Your task to perform on an android device: Add "dell xps" to the cart on ebay Image 0: 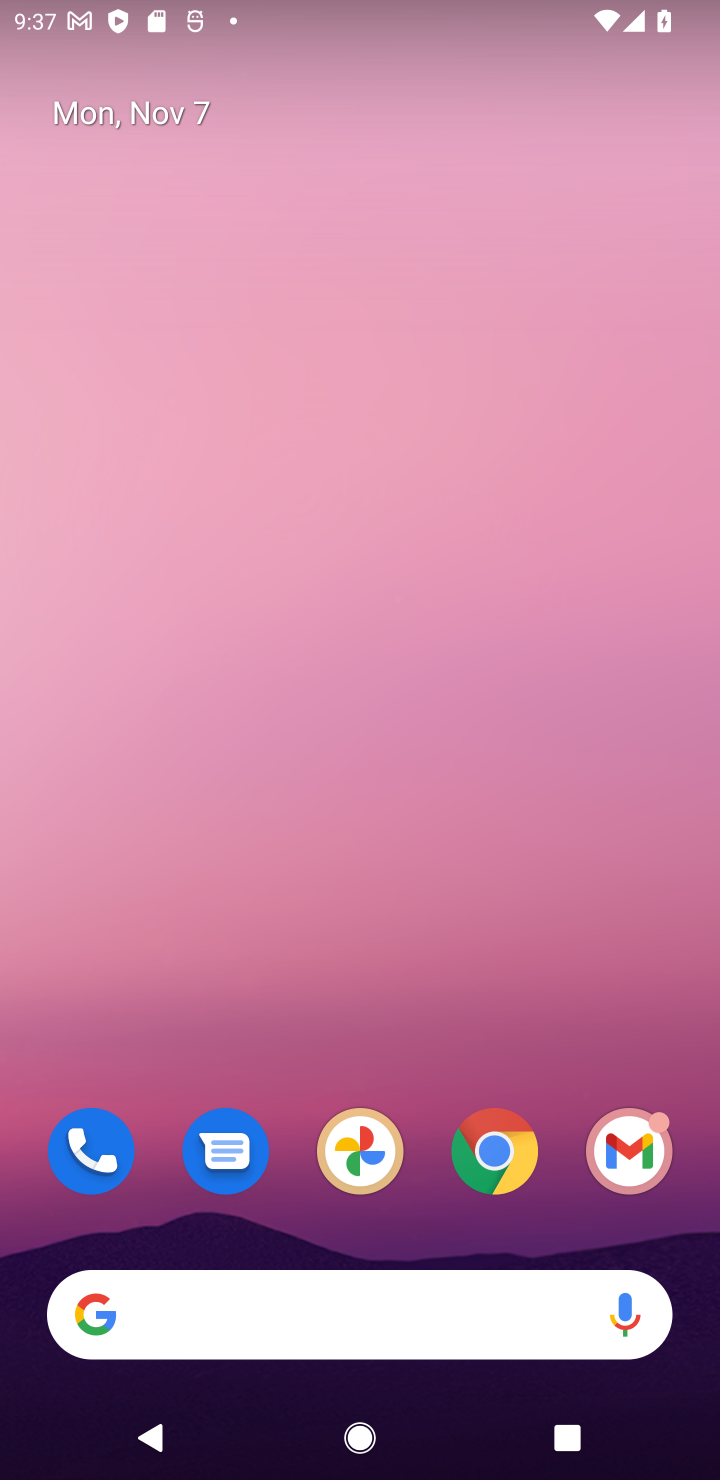
Step 0: press home button
Your task to perform on an android device: Add "dell xps" to the cart on ebay Image 1: 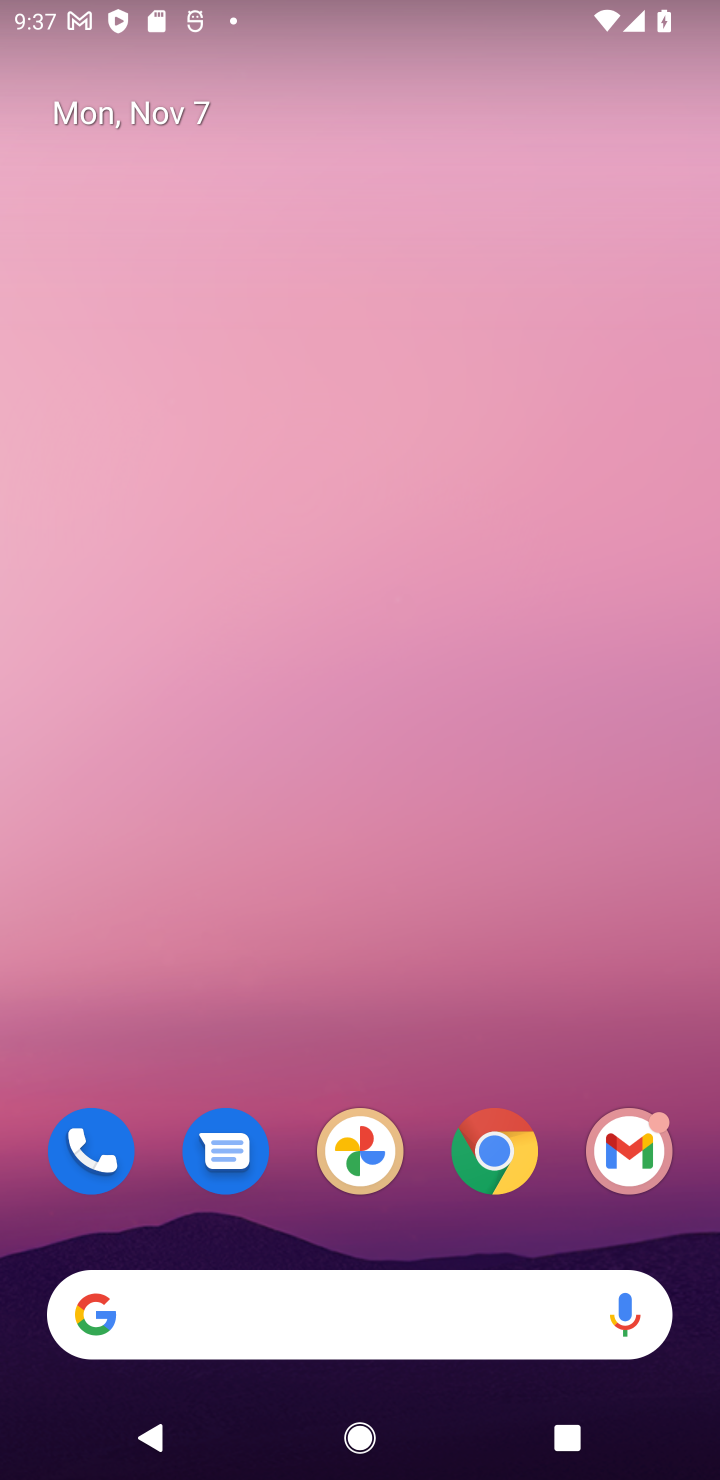
Step 1: click (513, 1134)
Your task to perform on an android device: Add "dell xps" to the cart on ebay Image 2: 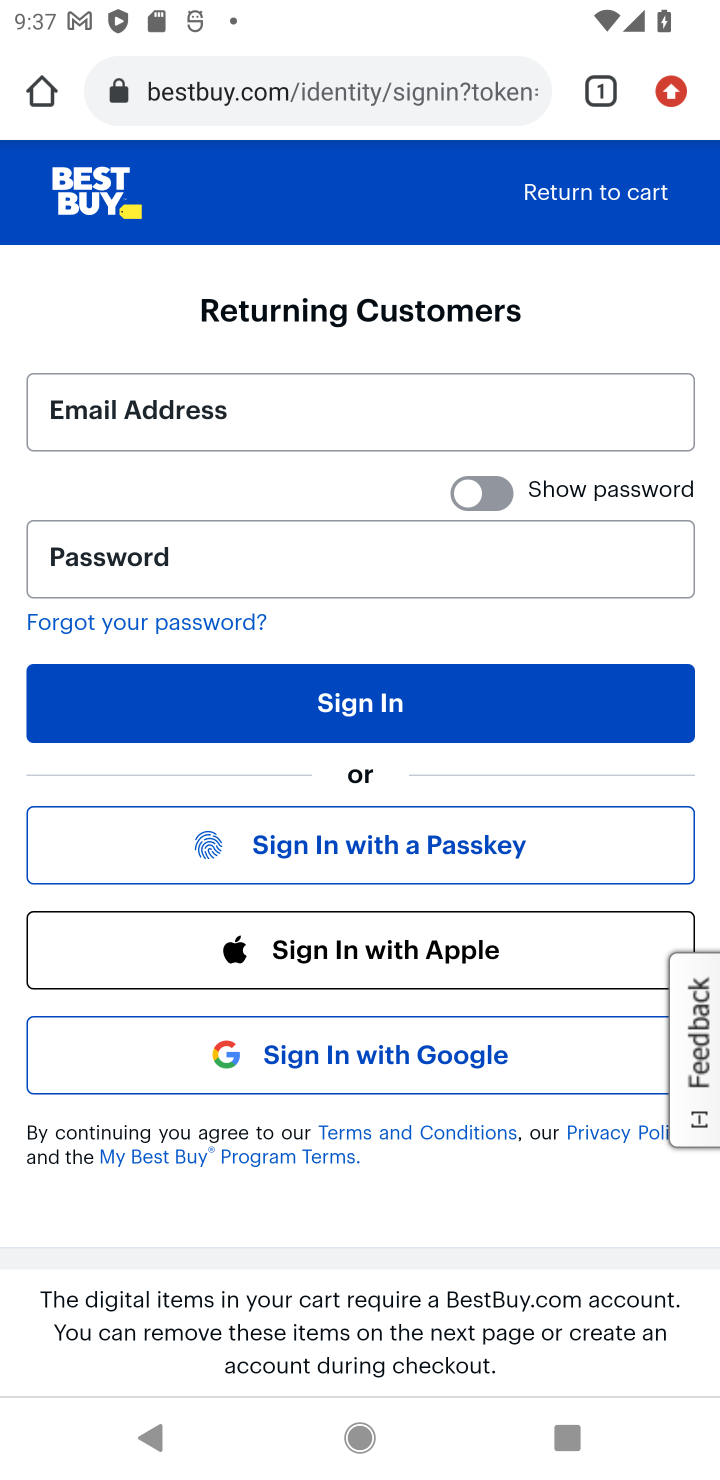
Step 2: click (270, 80)
Your task to perform on an android device: Add "dell xps" to the cart on ebay Image 3: 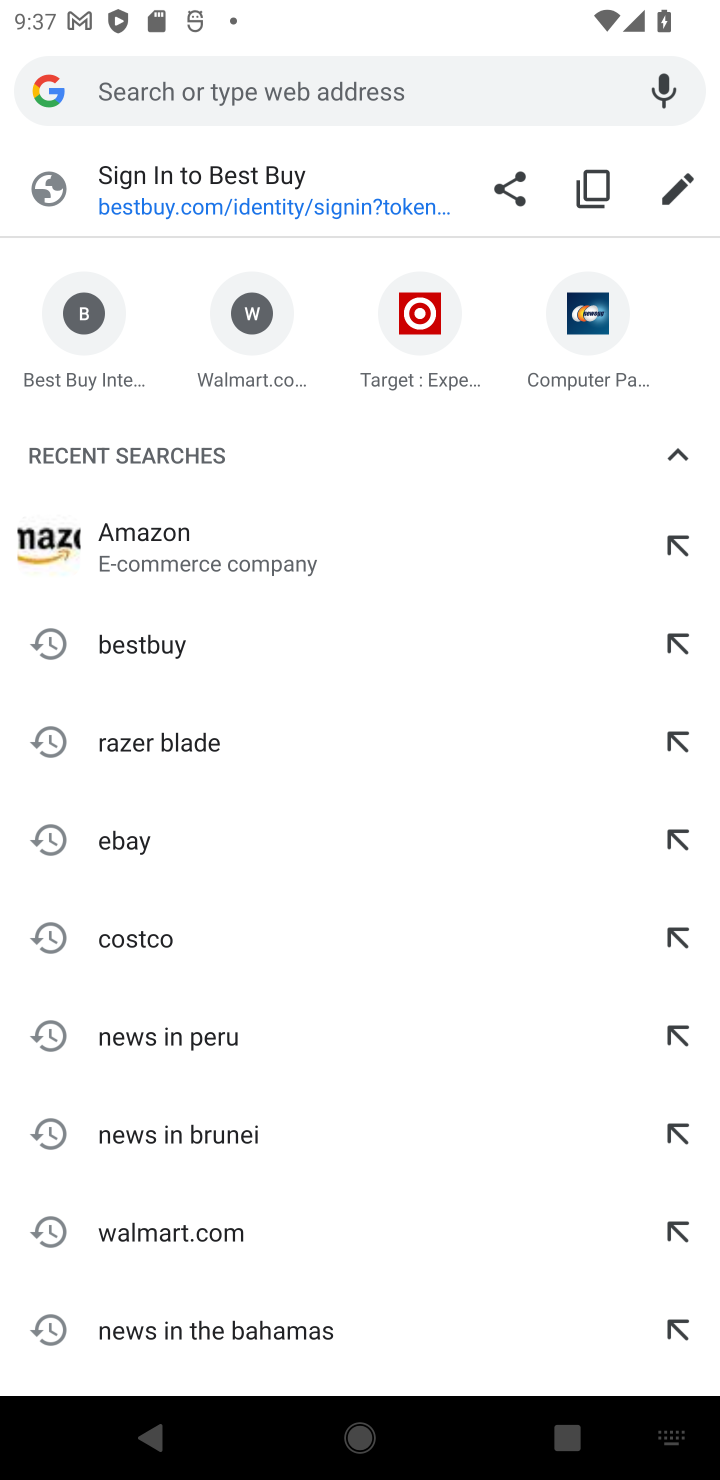
Step 3: click (123, 834)
Your task to perform on an android device: Add "dell xps" to the cart on ebay Image 4: 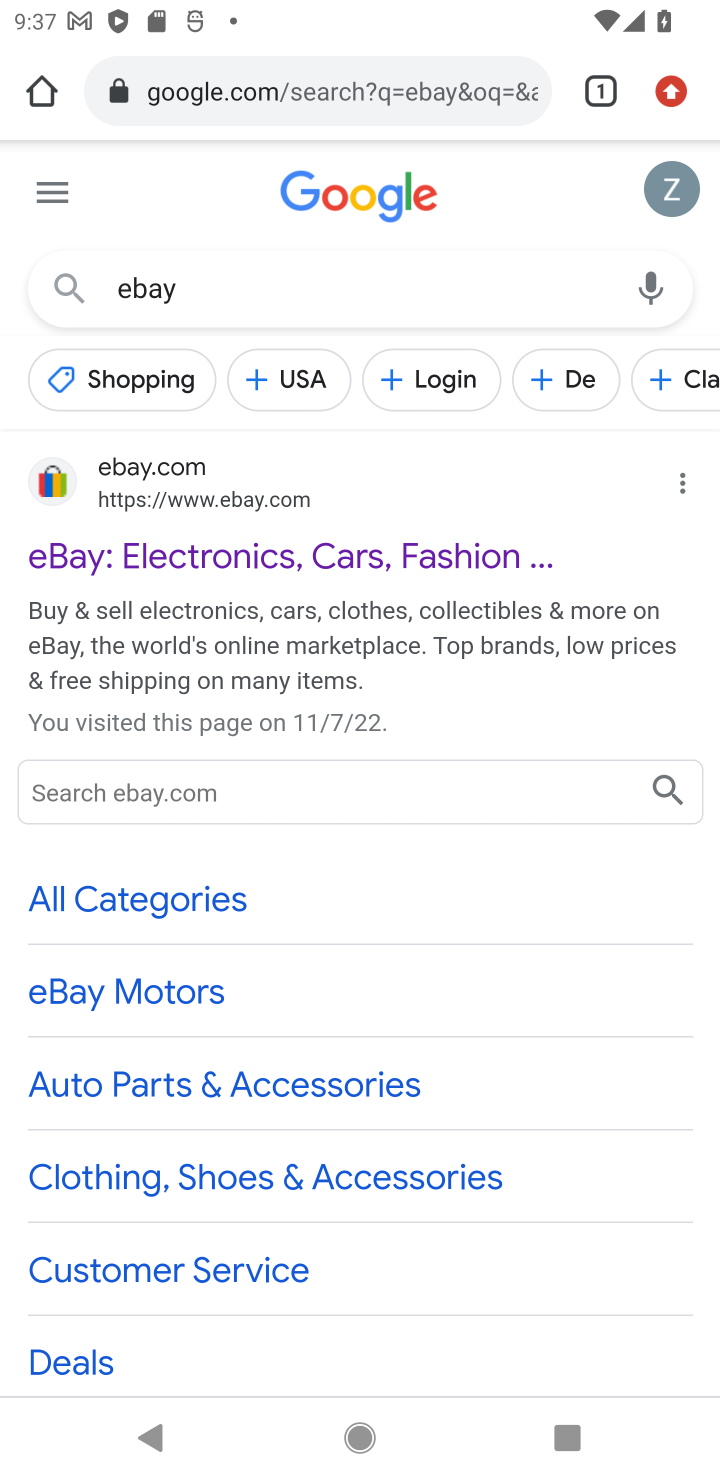
Step 4: click (273, 541)
Your task to perform on an android device: Add "dell xps" to the cart on ebay Image 5: 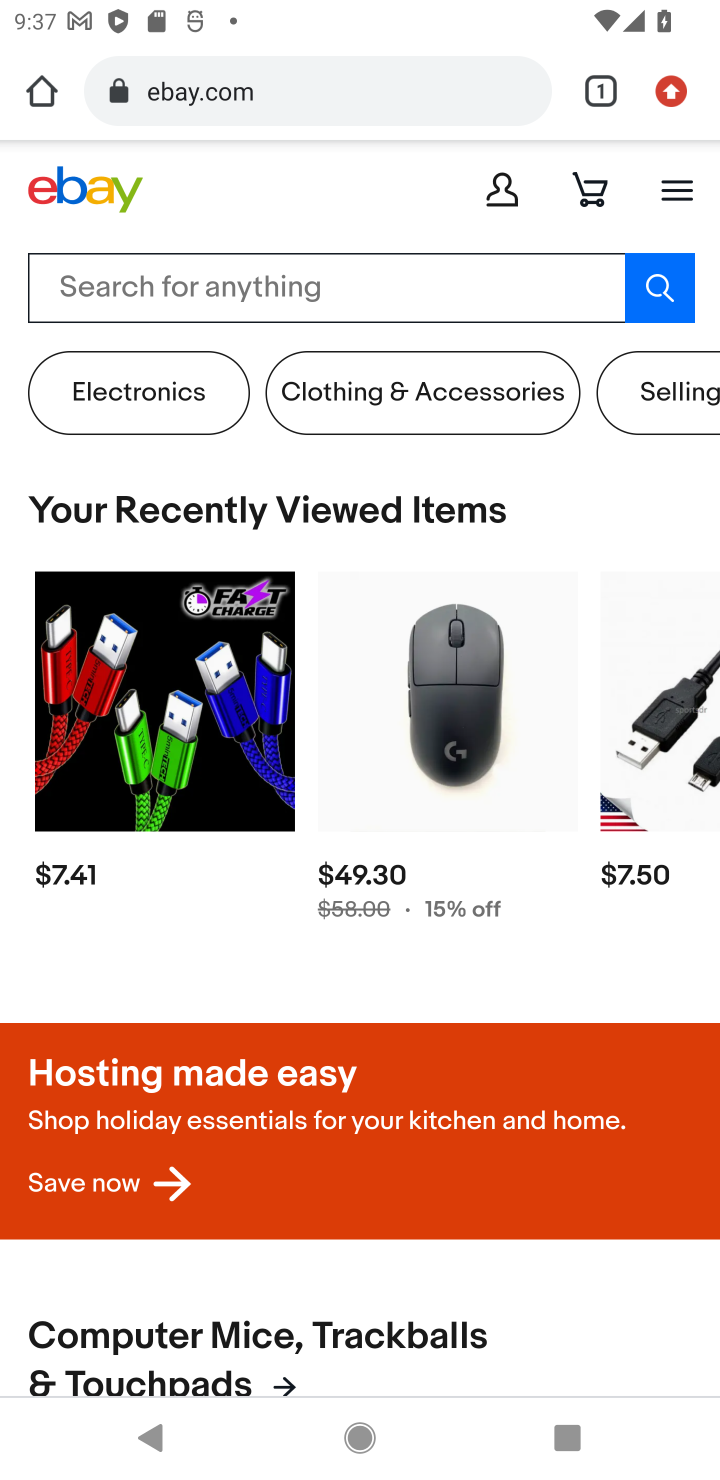
Step 5: click (267, 284)
Your task to perform on an android device: Add "dell xps" to the cart on ebay Image 6: 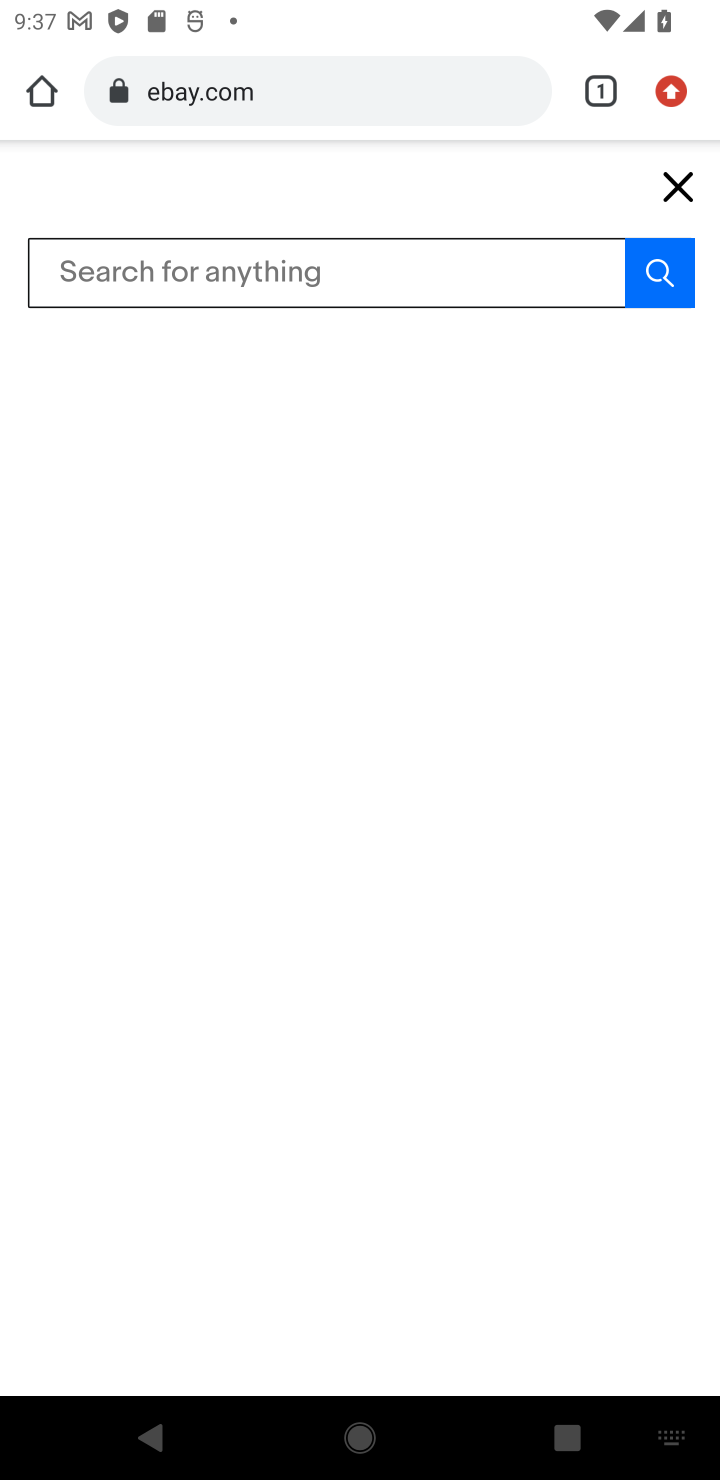
Step 6: type "dell xps"
Your task to perform on an android device: Add "dell xps" to the cart on ebay Image 7: 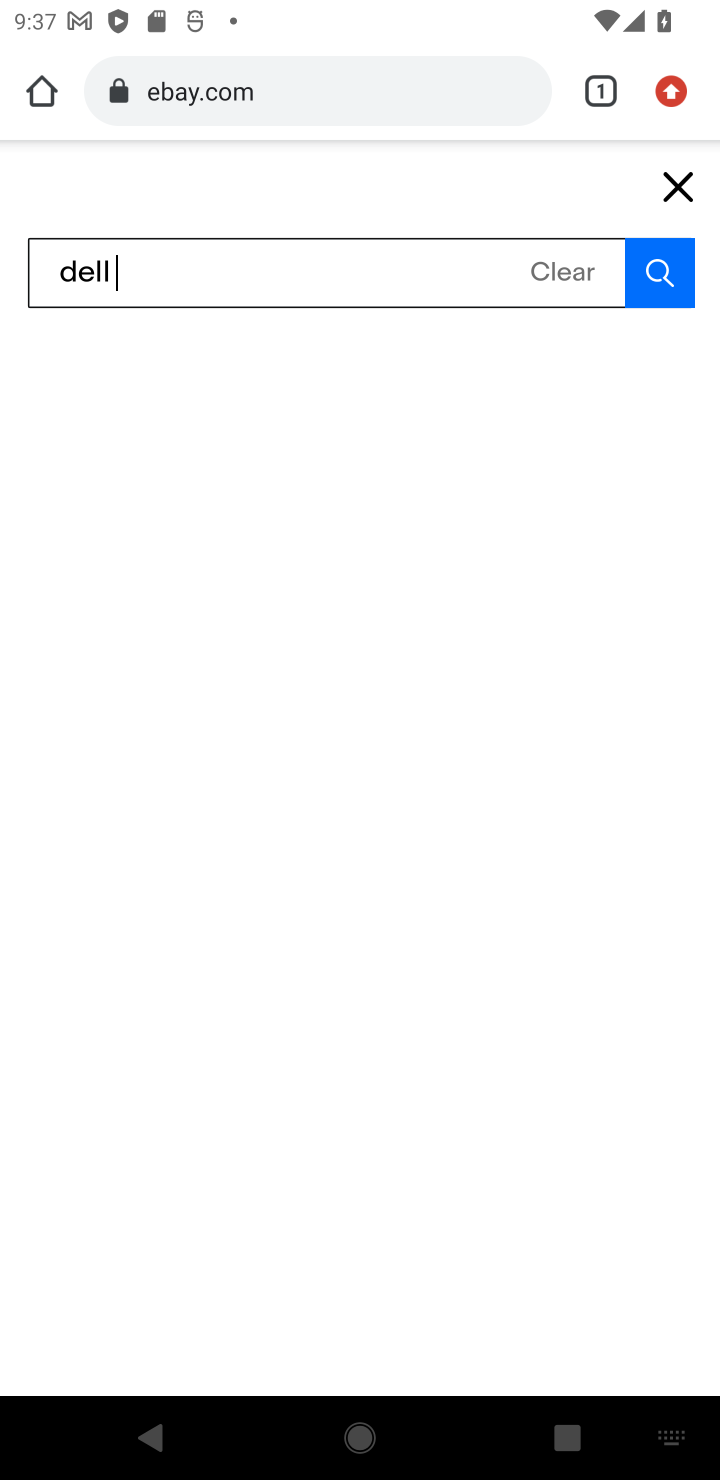
Step 7: press enter
Your task to perform on an android device: Add "dell xps" to the cart on ebay Image 8: 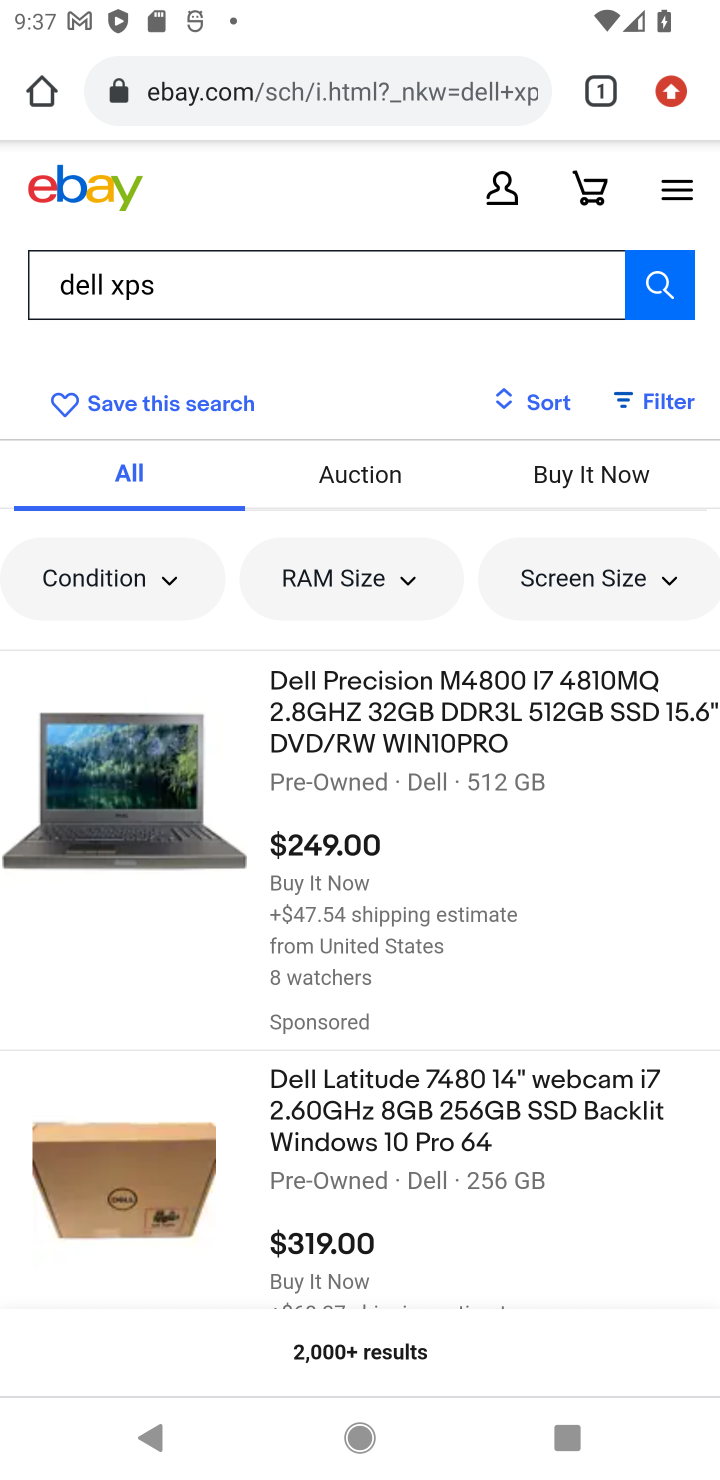
Step 8: drag from (479, 1188) to (620, 748)
Your task to perform on an android device: Add "dell xps" to the cart on ebay Image 9: 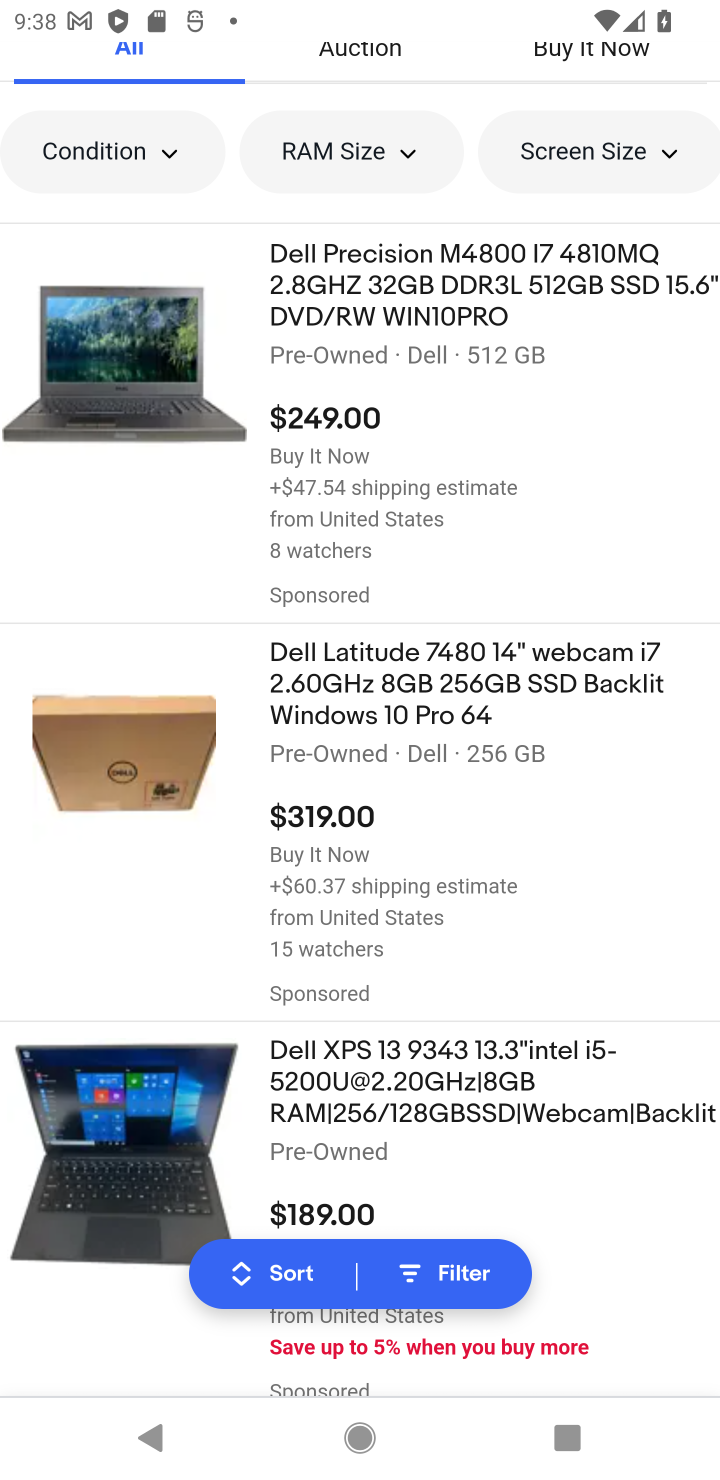
Step 9: click (427, 1069)
Your task to perform on an android device: Add "dell xps" to the cart on ebay Image 10: 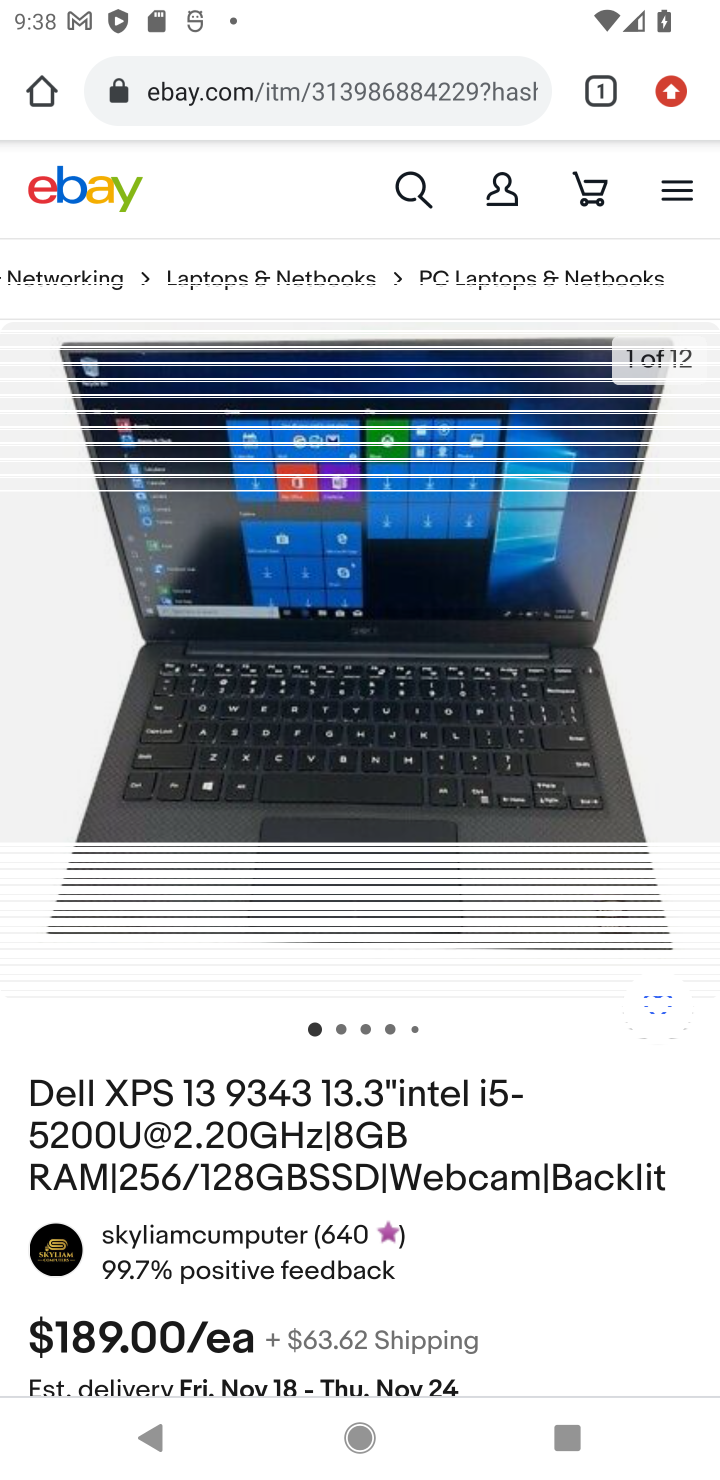
Step 10: drag from (412, 1243) to (566, 312)
Your task to perform on an android device: Add "dell xps" to the cart on ebay Image 11: 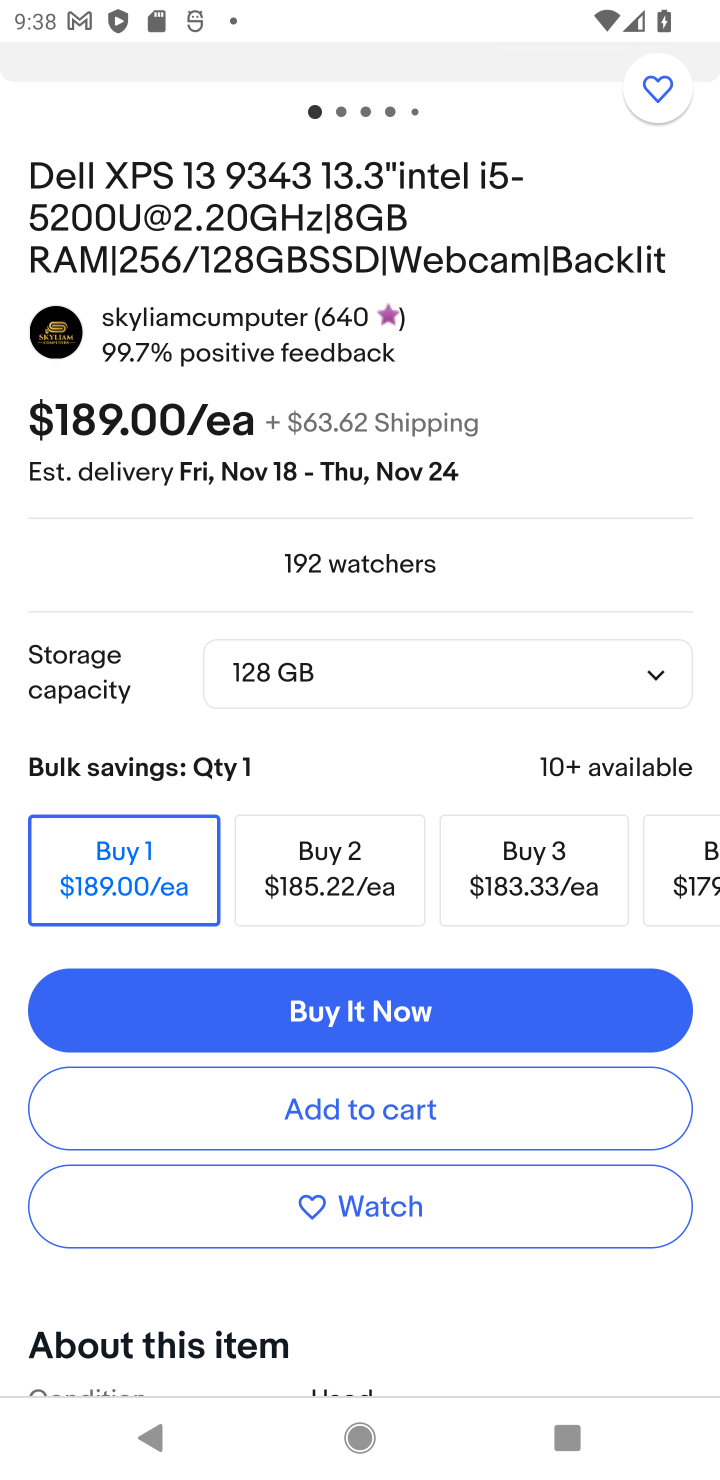
Step 11: click (389, 1113)
Your task to perform on an android device: Add "dell xps" to the cart on ebay Image 12: 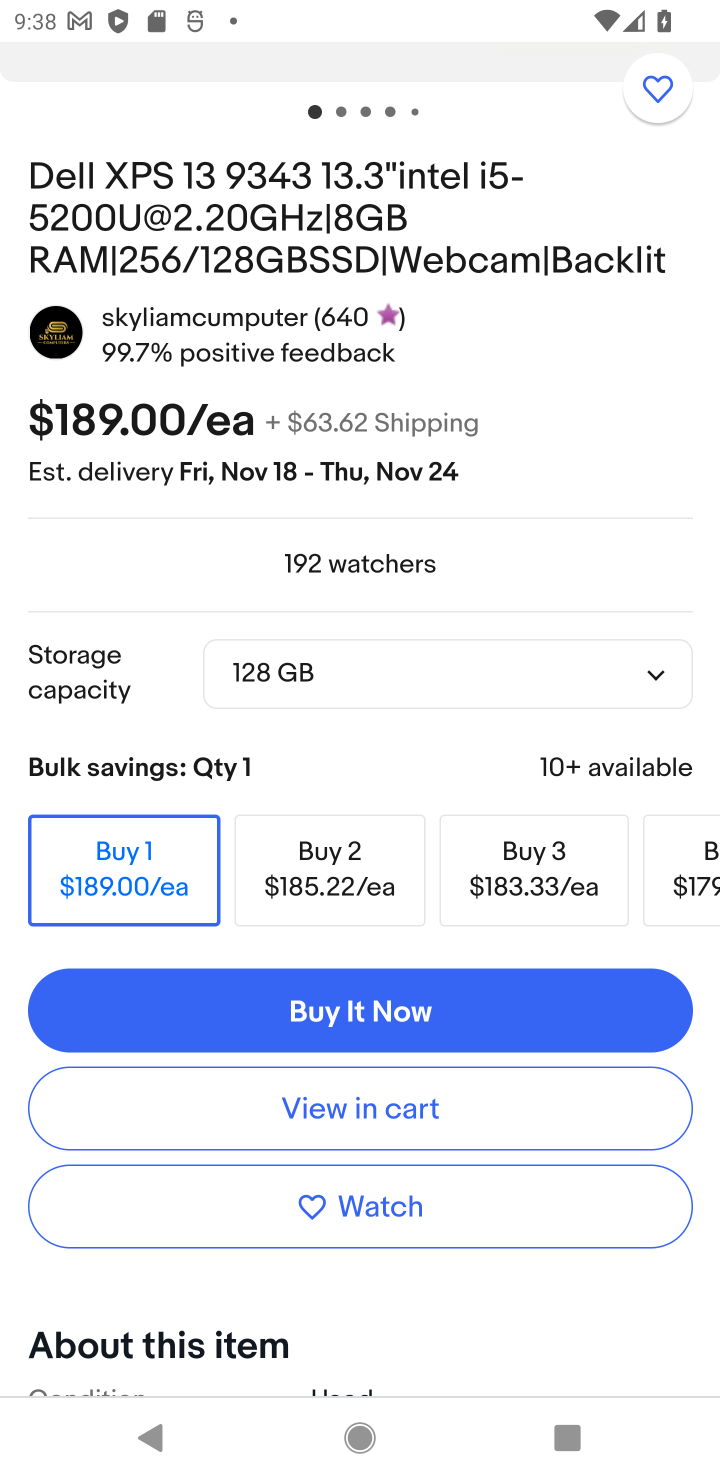
Step 12: click (389, 1113)
Your task to perform on an android device: Add "dell xps" to the cart on ebay Image 13: 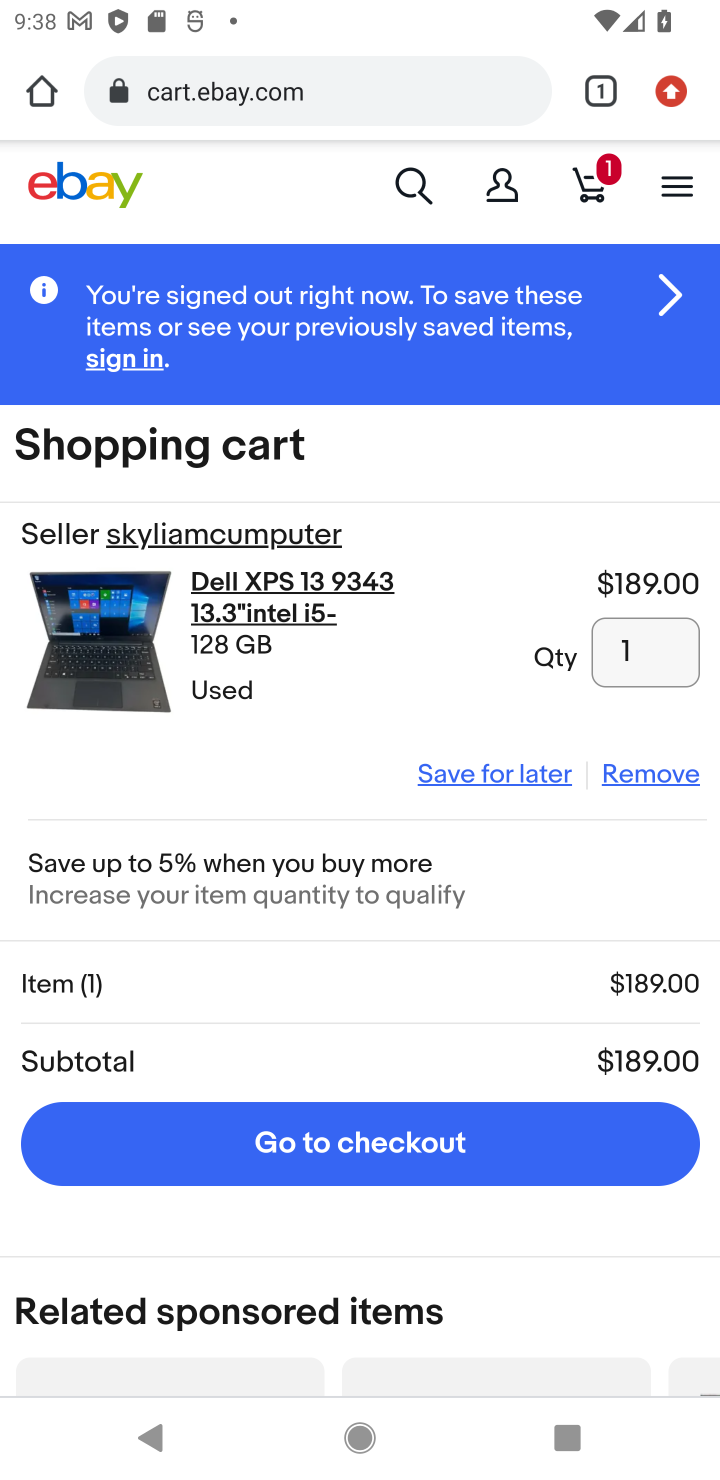
Step 13: task complete